Your task to perform on an android device: When is my next meeting? Image 0: 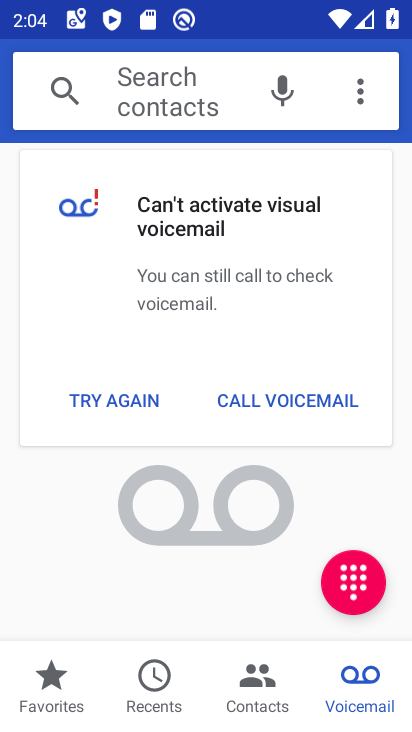
Step 0: press home button
Your task to perform on an android device: When is my next meeting? Image 1: 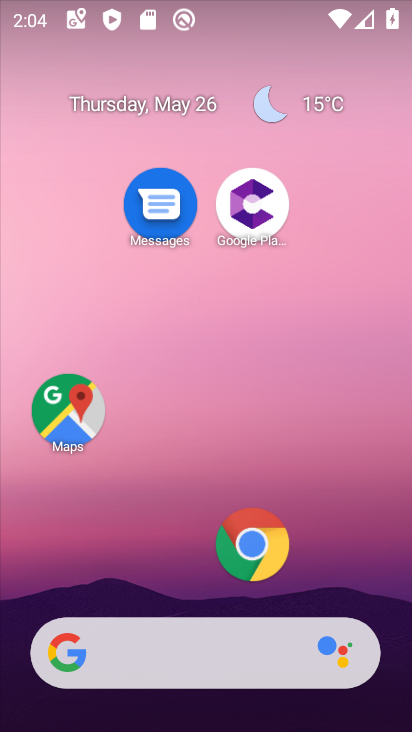
Step 1: click (170, 105)
Your task to perform on an android device: When is my next meeting? Image 2: 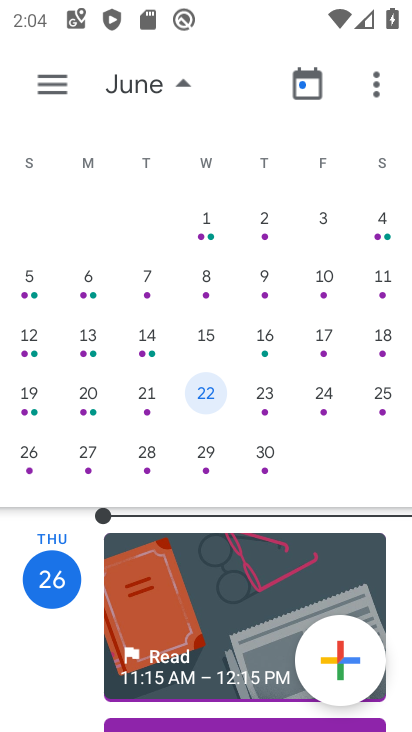
Step 2: task complete